Your task to perform on an android device: See recent photos Image 0: 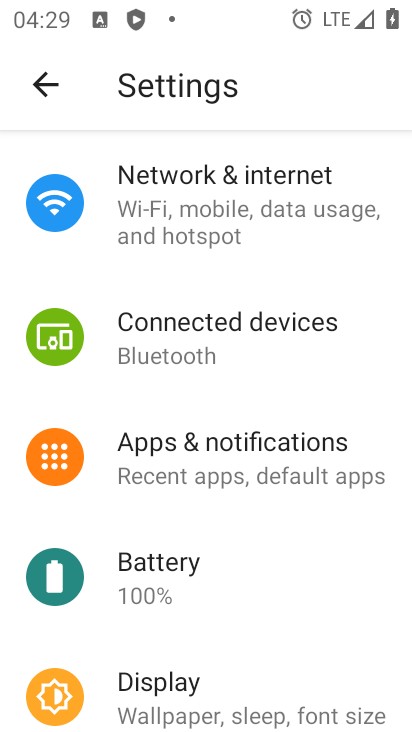
Step 0: press home button
Your task to perform on an android device: See recent photos Image 1: 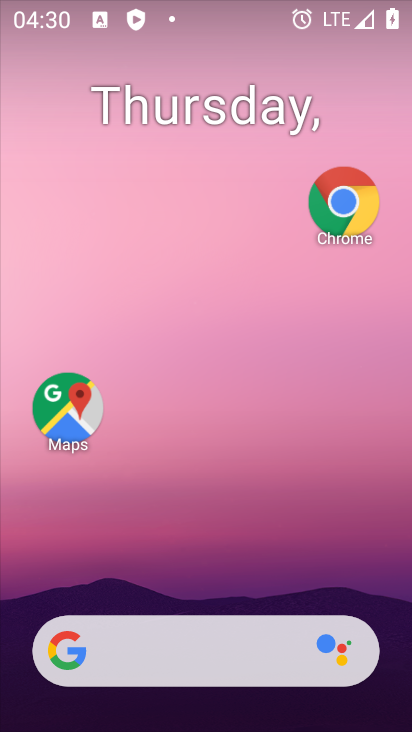
Step 1: drag from (202, 593) to (287, 96)
Your task to perform on an android device: See recent photos Image 2: 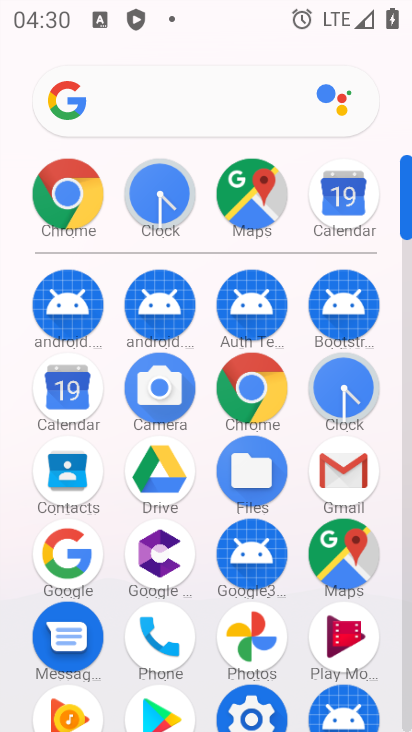
Step 2: click (268, 631)
Your task to perform on an android device: See recent photos Image 3: 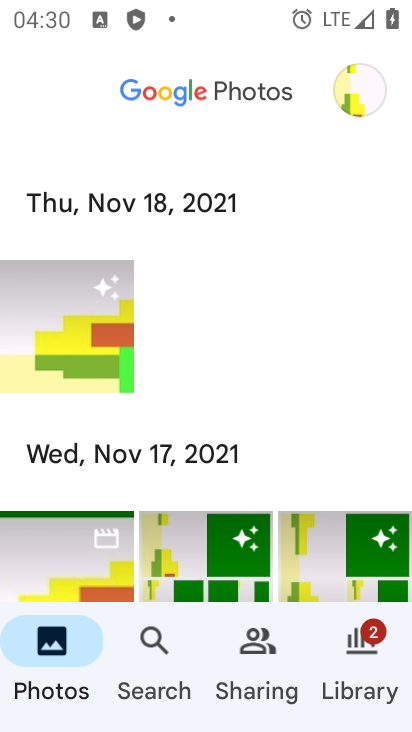
Step 3: task complete